Your task to perform on an android device: install app "Messages" Image 0: 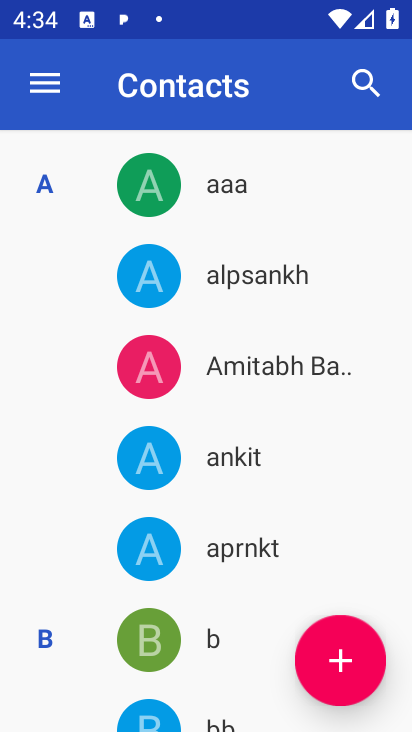
Step 0: press home button
Your task to perform on an android device: install app "Messages" Image 1: 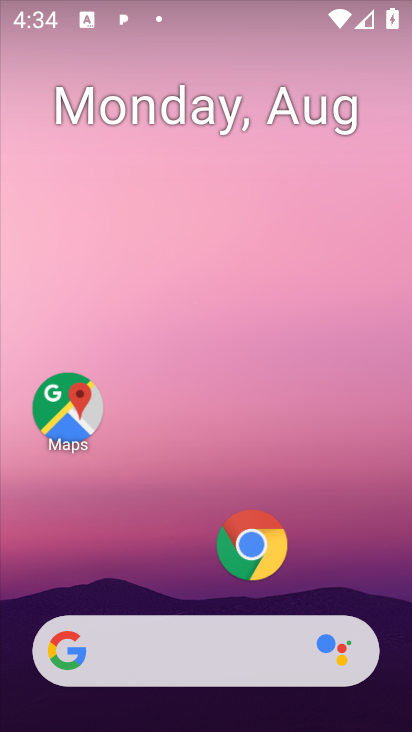
Step 1: drag from (130, 537) to (248, 64)
Your task to perform on an android device: install app "Messages" Image 2: 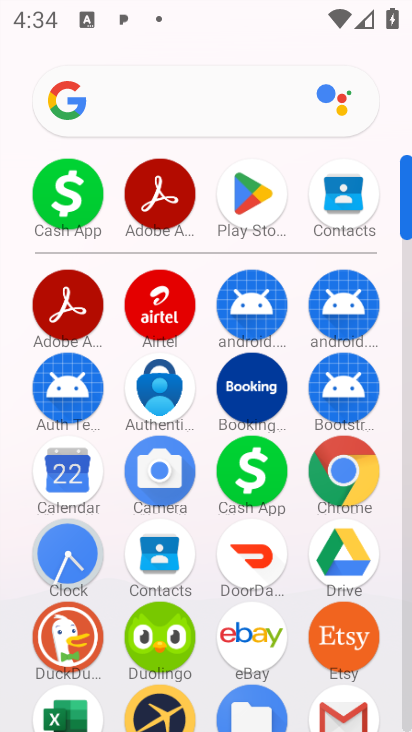
Step 2: drag from (269, 652) to (367, 248)
Your task to perform on an android device: install app "Messages" Image 3: 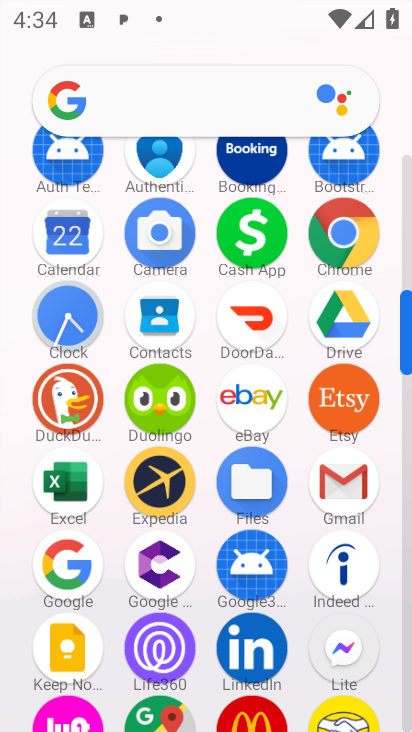
Step 3: drag from (286, 502) to (358, 123)
Your task to perform on an android device: install app "Messages" Image 4: 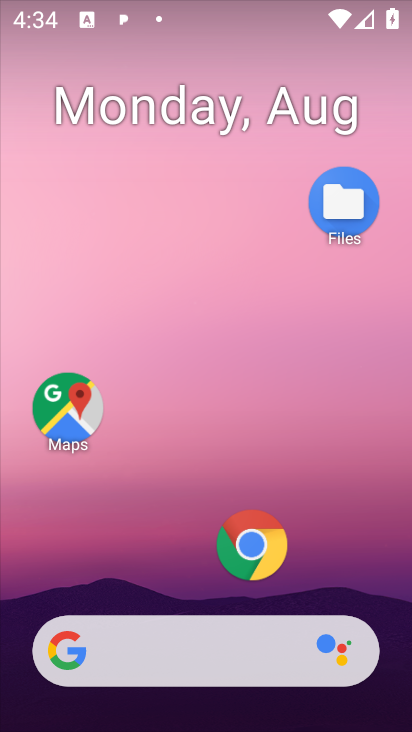
Step 4: drag from (165, 514) to (202, 19)
Your task to perform on an android device: install app "Messages" Image 5: 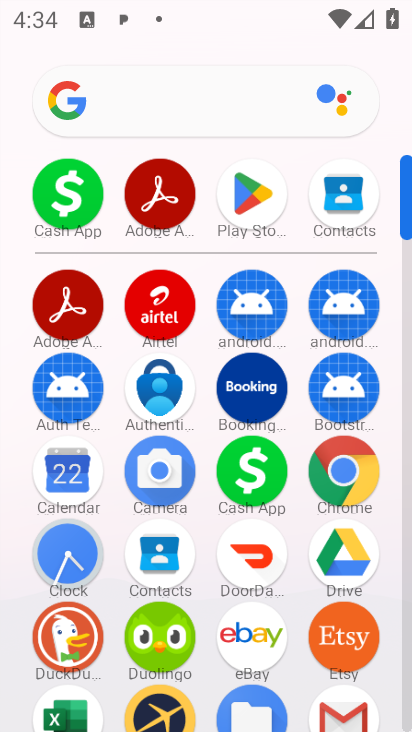
Step 5: drag from (220, 558) to (255, 171)
Your task to perform on an android device: install app "Messages" Image 6: 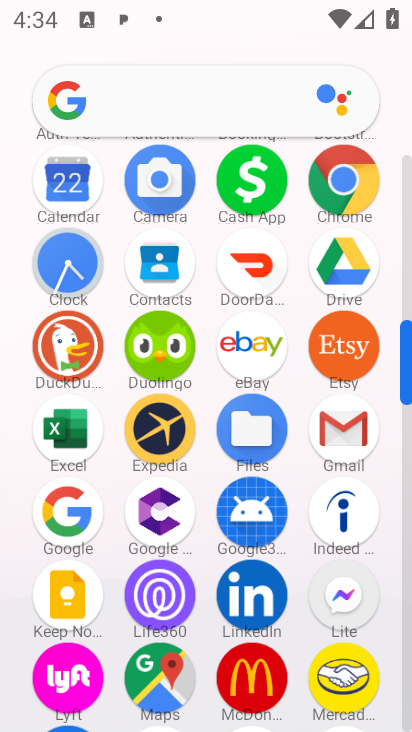
Step 6: drag from (172, 602) to (214, 208)
Your task to perform on an android device: install app "Messages" Image 7: 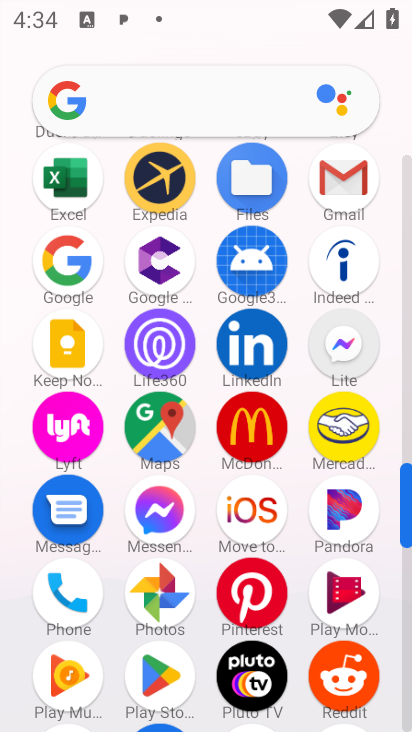
Step 7: click (80, 513)
Your task to perform on an android device: install app "Messages" Image 8: 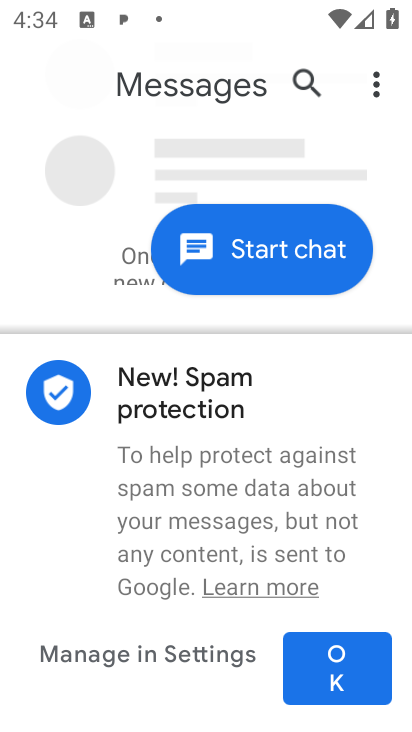
Step 8: task complete